Your task to perform on an android device: open a new tab in the chrome app Image 0: 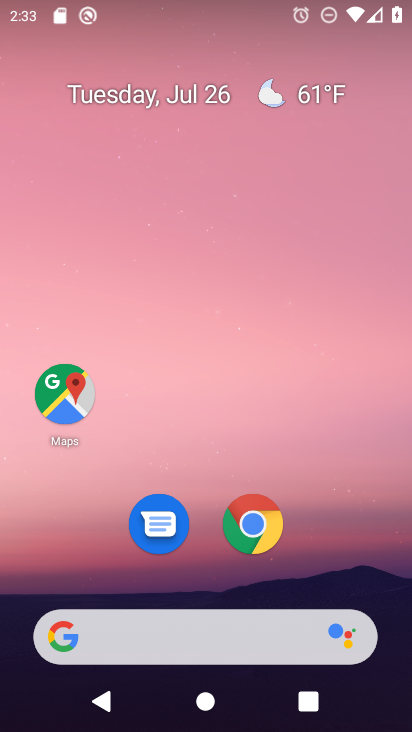
Step 0: click (247, 533)
Your task to perform on an android device: open a new tab in the chrome app Image 1: 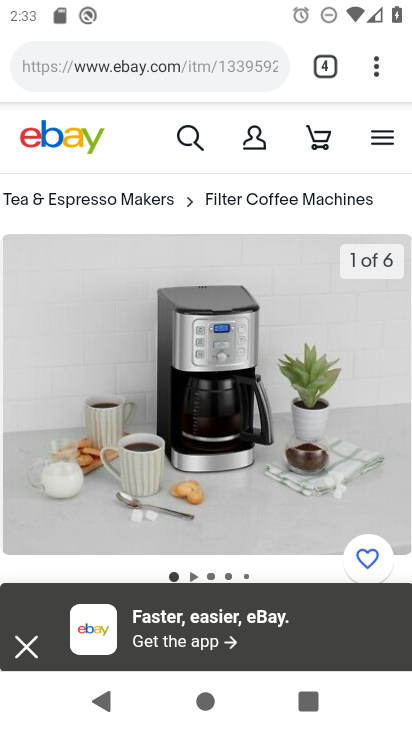
Step 1: task complete